Your task to perform on an android device: turn off sleep mode Image 0: 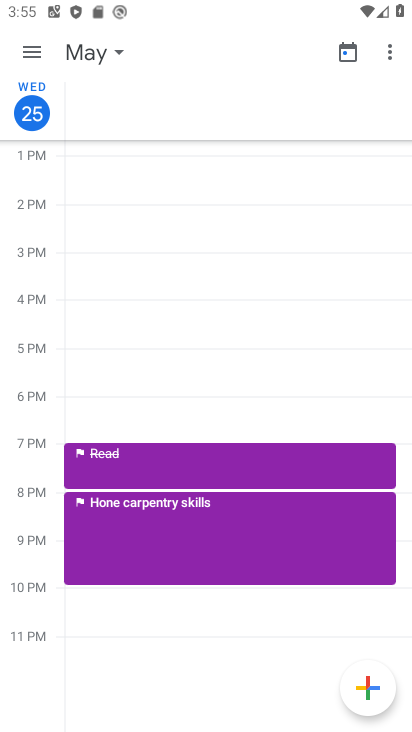
Step 0: press home button
Your task to perform on an android device: turn off sleep mode Image 1: 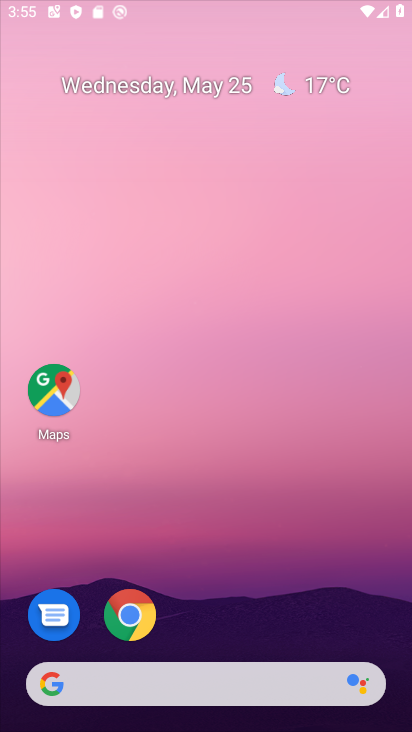
Step 1: drag from (357, 6) to (344, 658)
Your task to perform on an android device: turn off sleep mode Image 2: 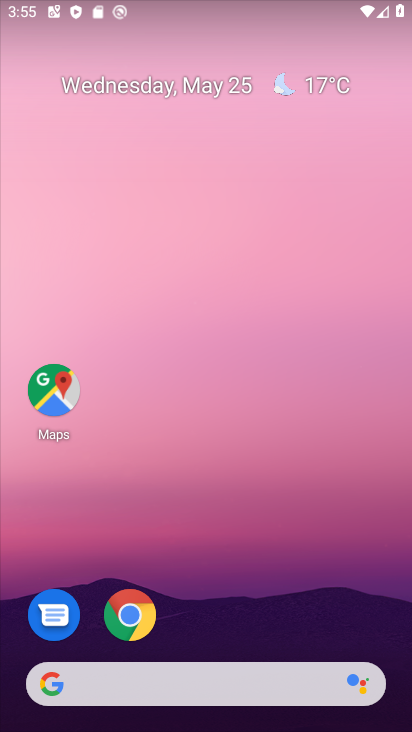
Step 2: drag from (349, 7) to (299, 512)
Your task to perform on an android device: turn off sleep mode Image 3: 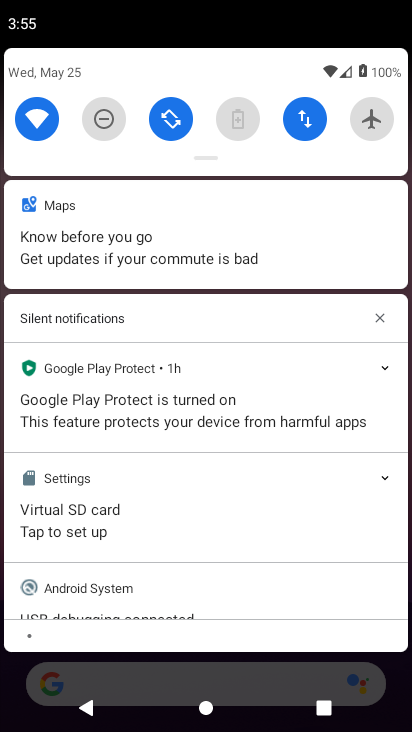
Step 3: drag from (214, 145) to (234, 671)
Your task to perform on an android device: turn off sleep mode Image 4: 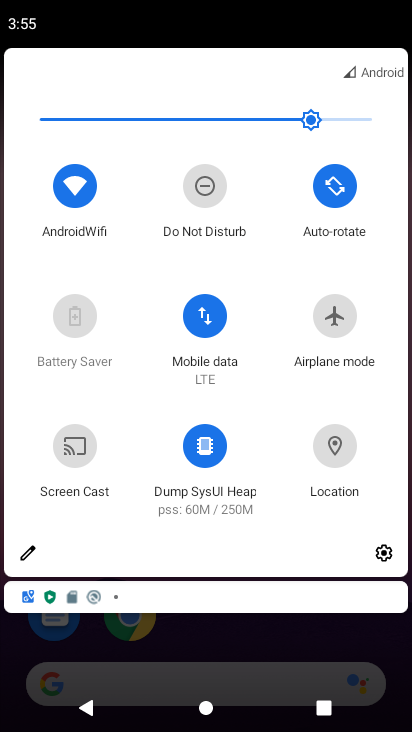
Step 4: click (32, 552)
Your task to perform on an android device: turn off sleep mode Image 5: 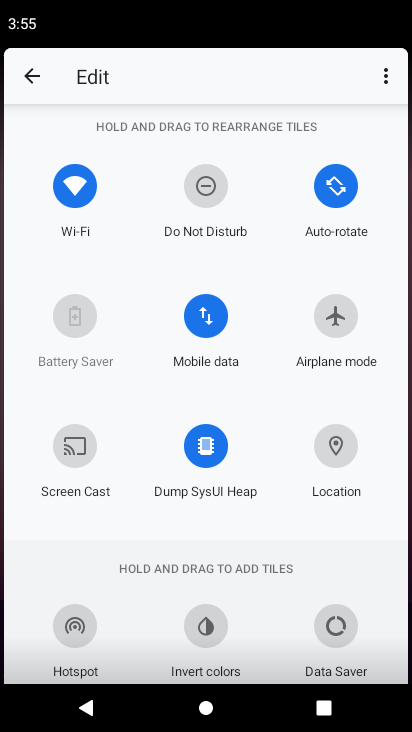
Step 5: task complete